Your task to perform on an android device: Open the phone app and click the voicemail tab. Image 0: 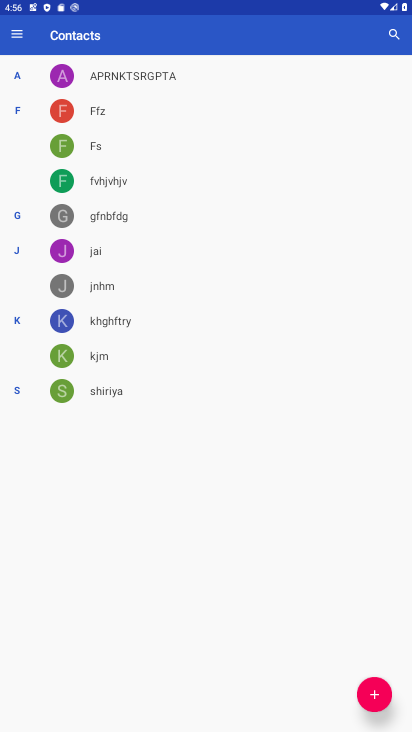
Step 0: press home button
Your task to perform on an android device: Open the phone app and click the voicemail tab. Image 1: 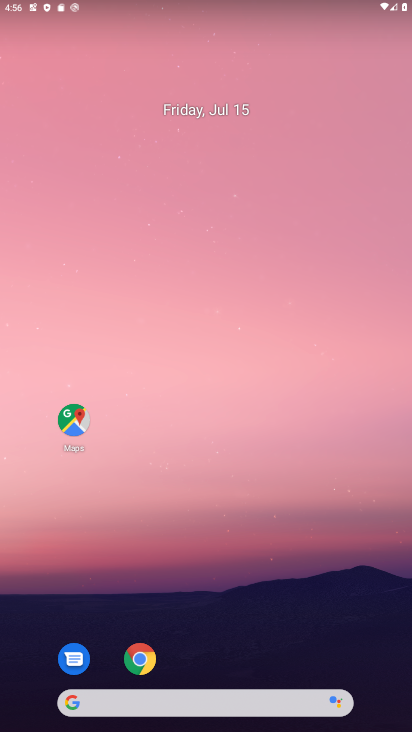
Step 1: drag from (184, 626) to (187, 160)
Your task to perform on an android device: Open the phone app and click the voicemail tab. Image 2: 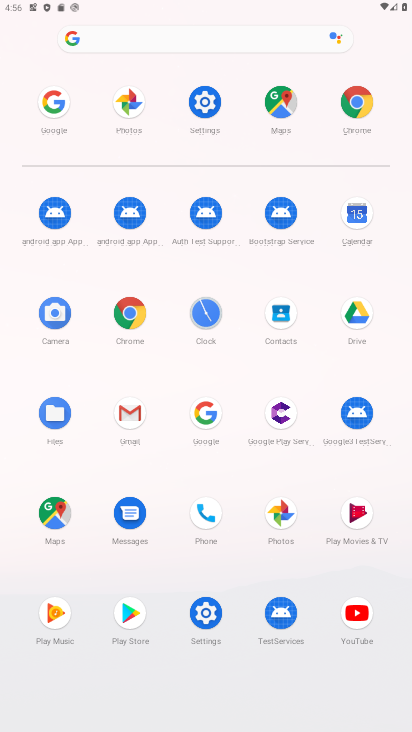
Step 2: click (212, 520)
Your task to perform on an android device: Open the phone app and click the voicemail tab. Image 3: 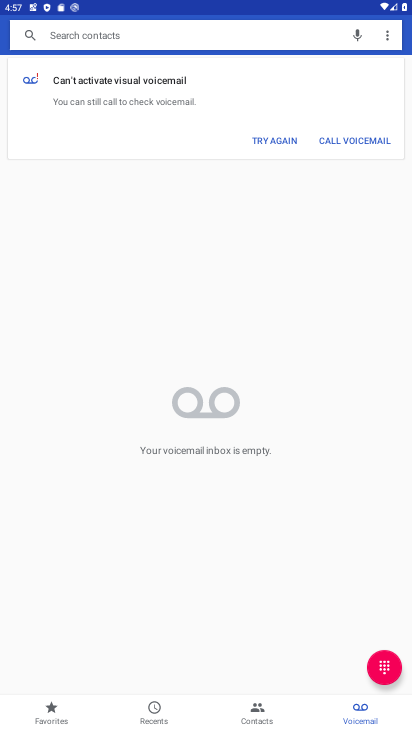
Step 3: task complete